Your task to perform on an android device: set the stopwatch Image 0: 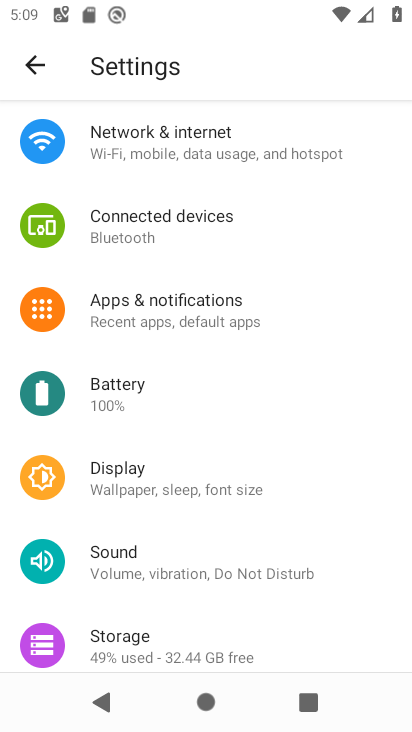
Step 0: press home button
Your task to perform on an android device: set the stopwatch Image 1: 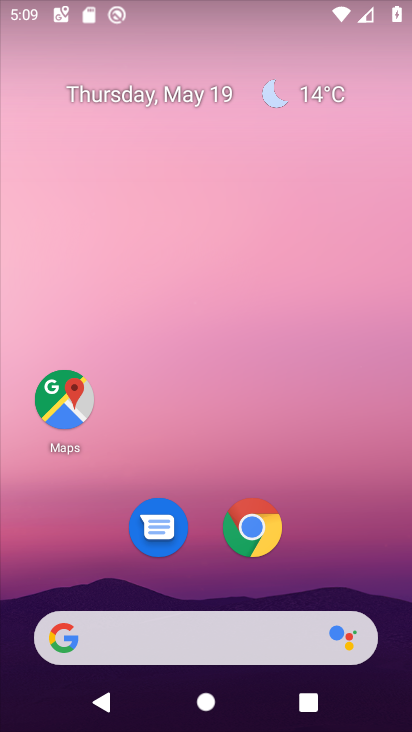
Step 1: drag from (337, 556) to (223, 1)
Your task to perform on an android device: set the stopwatch Image 2: 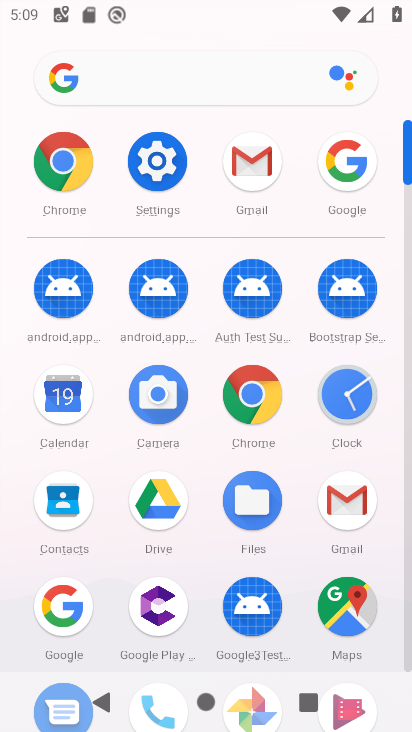
Step 2: click (343, 395)
Your task to perform on an android device: set the stopwatch Image 3: 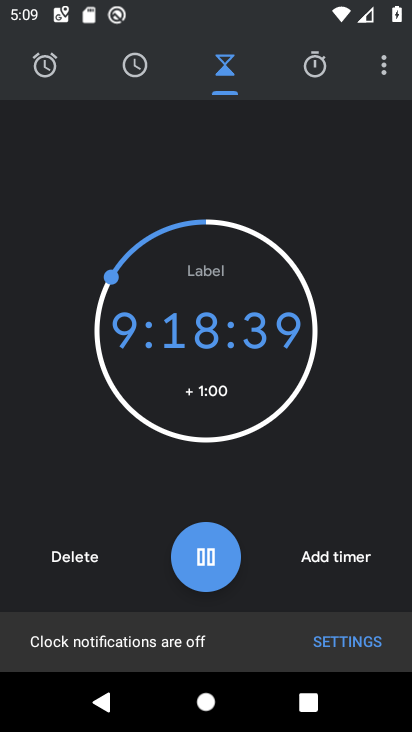
Step 3: click (309, 78)
Your task to perform on an android device: set the stopwatch Image 4: 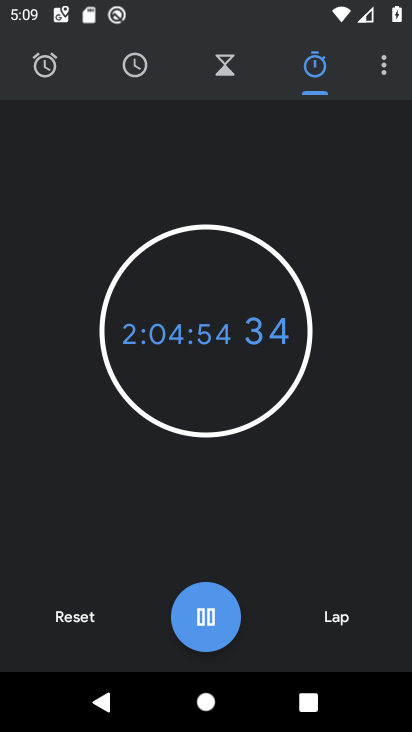
Step 4: click (70, 603)
Your task to perform on an android device: set the stopwatch Image 5: 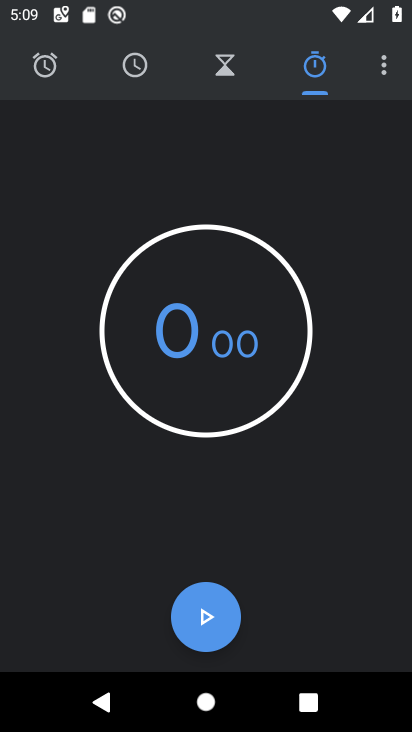
Step 5: click (211, 610)
Your task to perform on an android device: set the stopwatch Image 6: 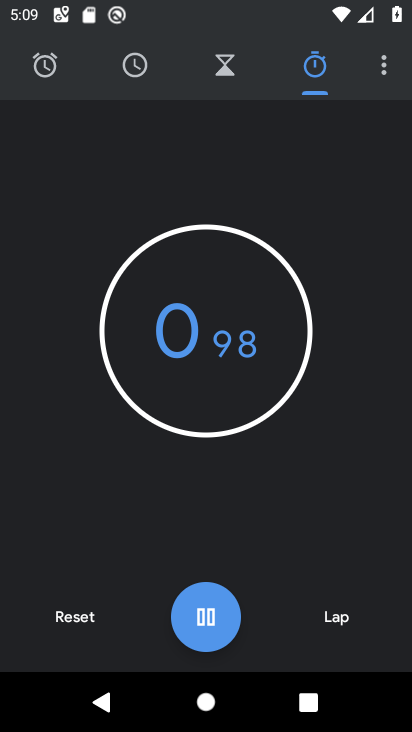
Step 6: task complete